Your task to perform on an android device: Open the web browser Image 0: 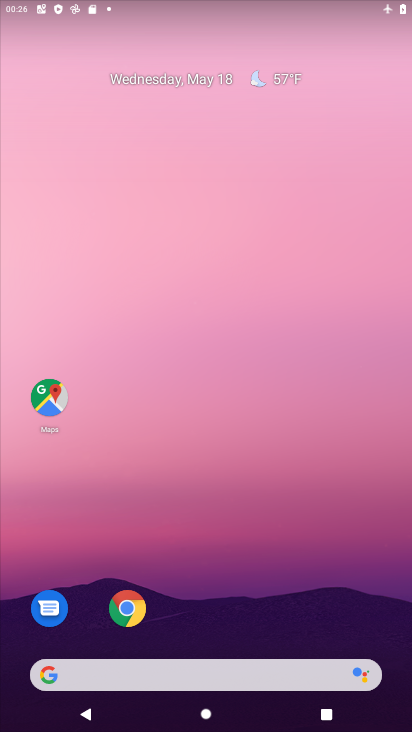
Step 0: click (124, 610)
Your task to perform on an android device: Open the web browser Image 1: 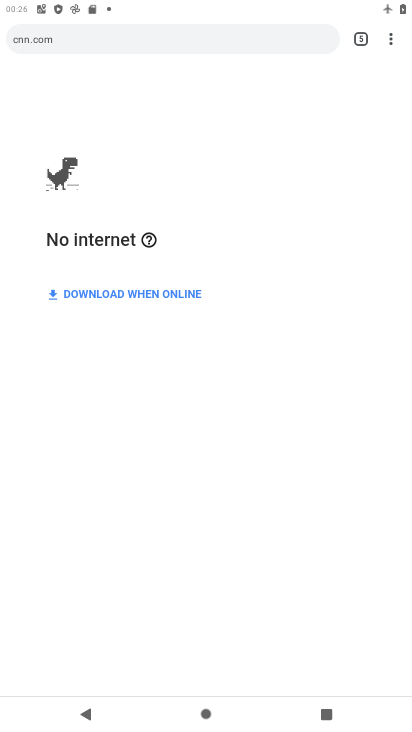
Step 1: task complete